Your task to perform on an android device: turn off data saver in the chrome app Image 0: 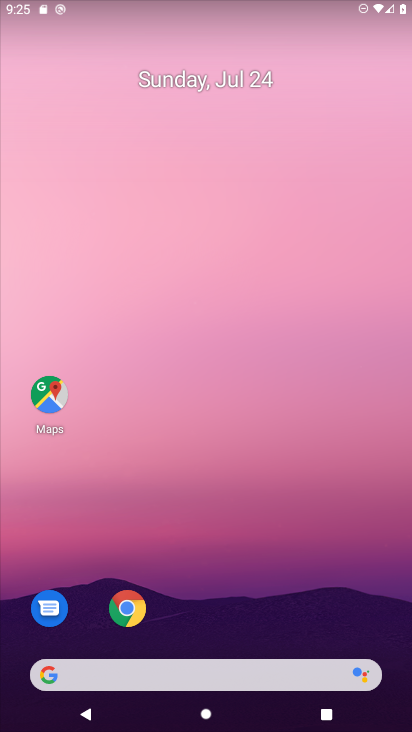
Step 0: drag from (195, 617) to (288, 109)
Your task to perform on an android device: turn off data saver in the chrome app Image 1: 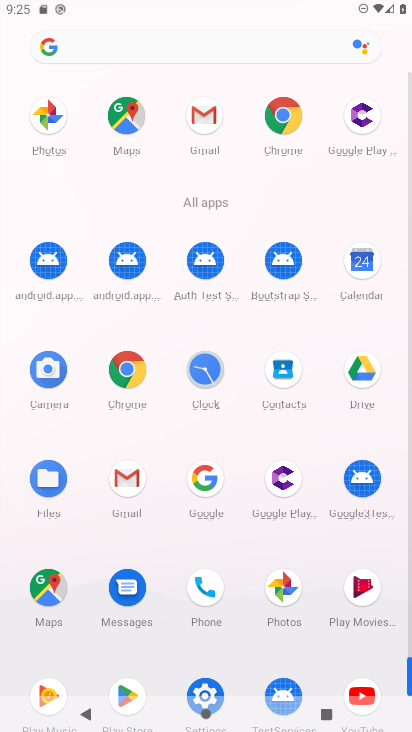
Step 1: click (281, 126)
Your task to perform on an android device: turn off data saver in the chrome app Image 2: 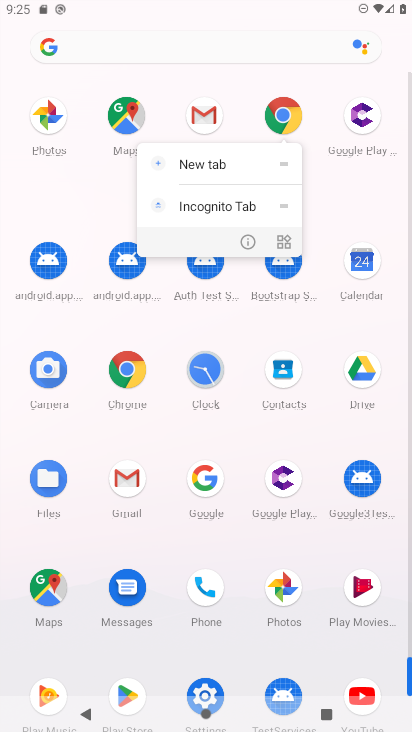
Step 2: click (239, 244)
Your task to perform on an android device: turn off data saver in the chrome app Image 3: 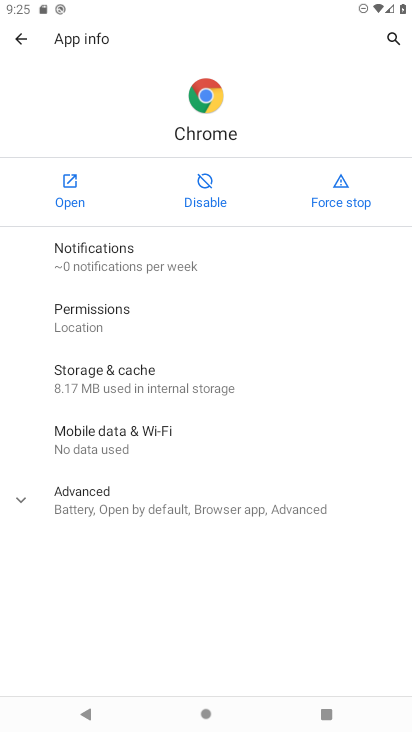
Step 3: click (69, 194)
Your task to perform on an android device: turn off data saver in the chrome app Image 4: 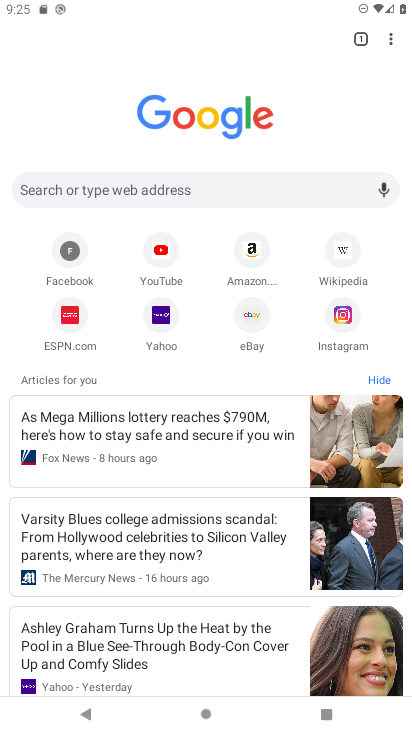
Step 4: drag from (385, 35) to (282, 324)
Your task to perform on an android device: turn off data saver in the chrome app Image 5: 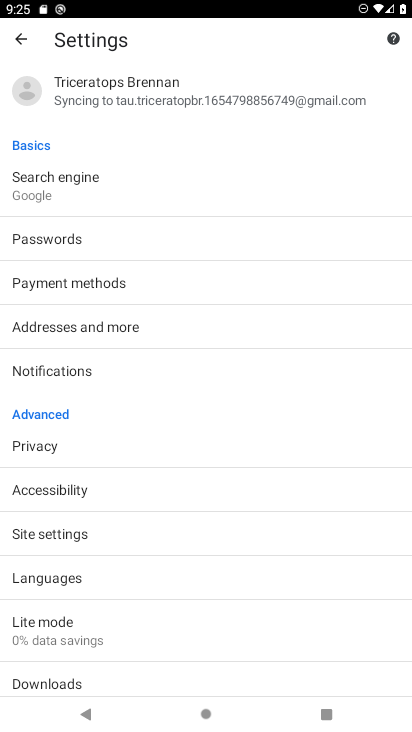
Step 5: drag from (200, 623) to (225, 254)
Your task to perform on an android device: turn off data saver in the chrome app Image 6: 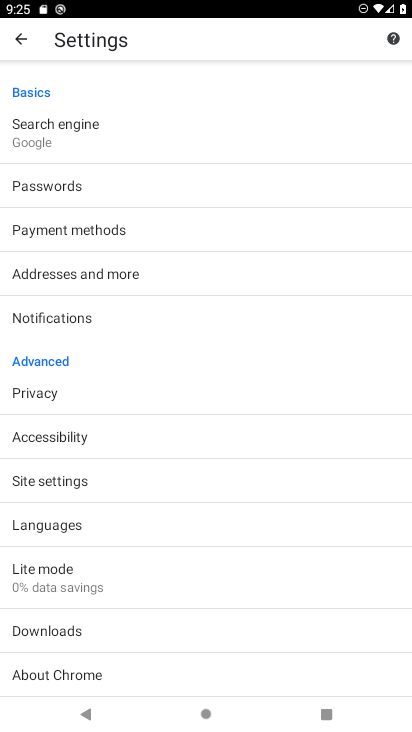
Step 6: click (89, 558)
Your task to perform on an android device: turn off data saver in the chrome app Image 7: 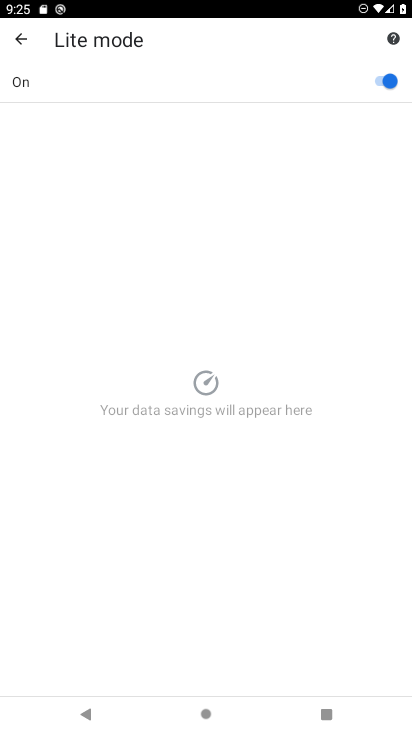
Step 7: drag from (206, 589) to (279, 173)
Your task to perform on an android device: turn off data saver in the chrome app Image 8: 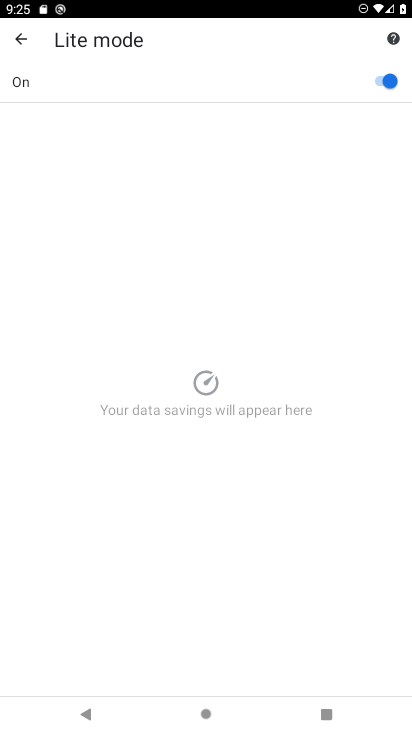
Step 8: click (383, 81)
Your task to perform on an android device: turn off data saver in the chrome app Image 9: 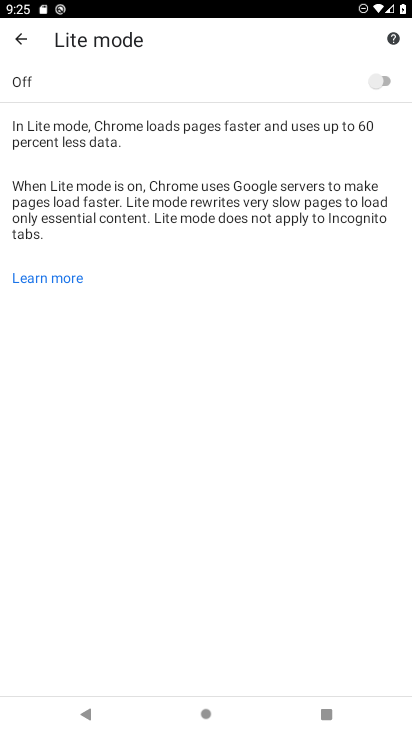
Step 9: task complete